Your task to perform on an android device: delete location history Image 0: 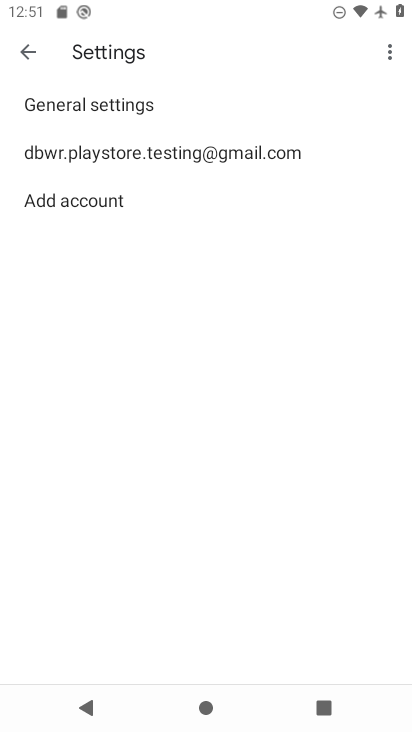
Step 0: press home button
Your task to perform on an android device: delete location history Image 1: 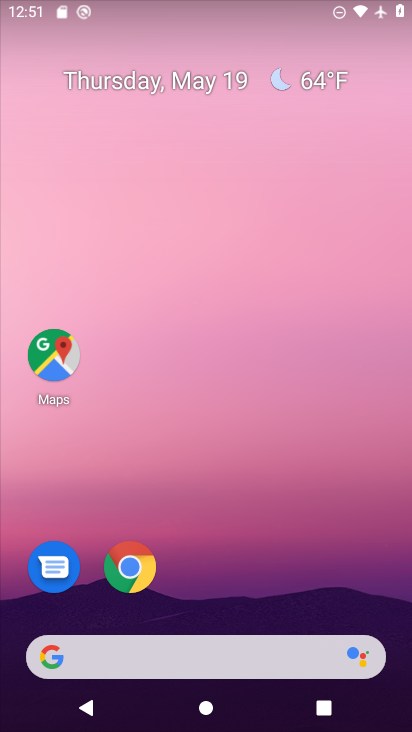
Step 1: drag from (273, 568) to (273, 112)
Your task to perform on an android device: delete location history Image 2: 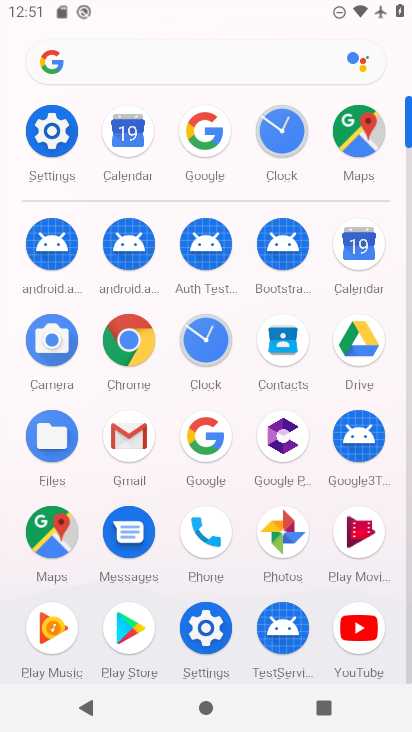
Step 2: click (58, 133)
Your task to perform on an android device: delete location history Image 3: 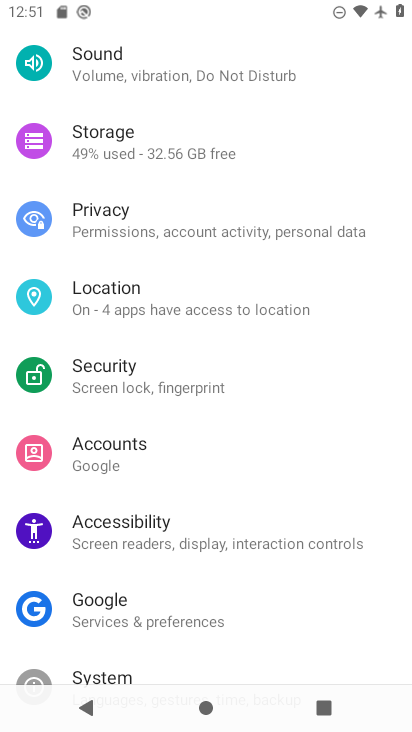
Step 3: click (175, 296)
Your task to perform on an android device: delete location history Image 4: 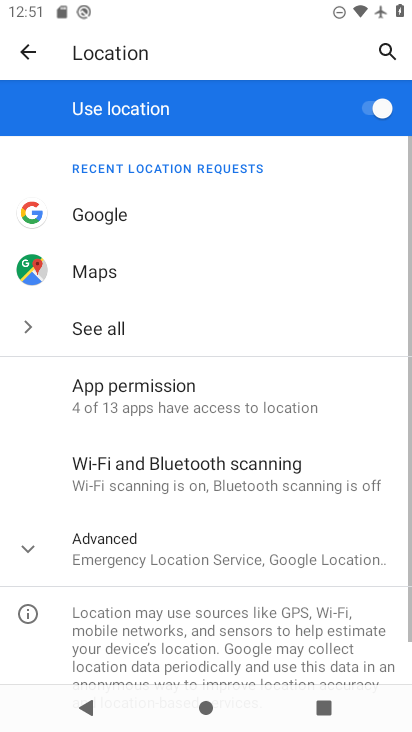
Step 4: click (30, 548)
Your task to perform on an android device: delete location history Image 5: 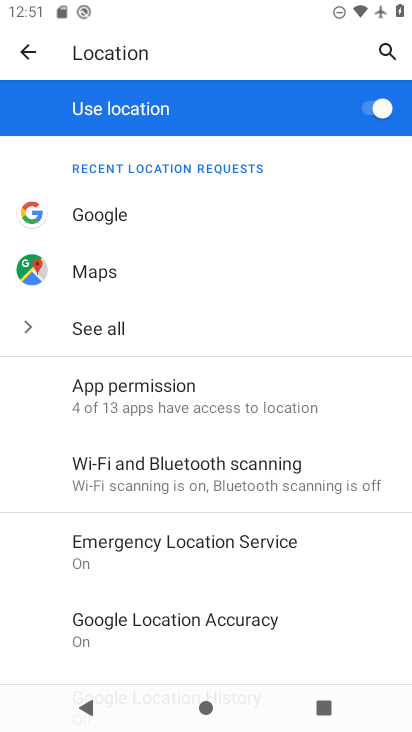
Step 5: drag from (227, 622) to (247, 298)
Your task to perform on an android device: delete location history Image 6: 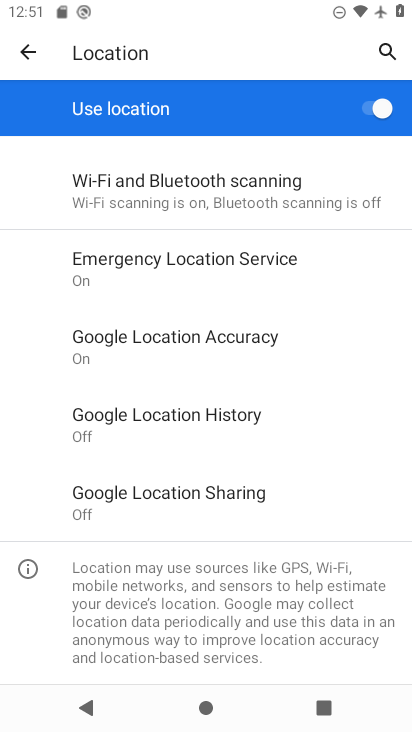
Step 6: click (232, 422)
Your task to perform on an android device: delete location history Image 7: 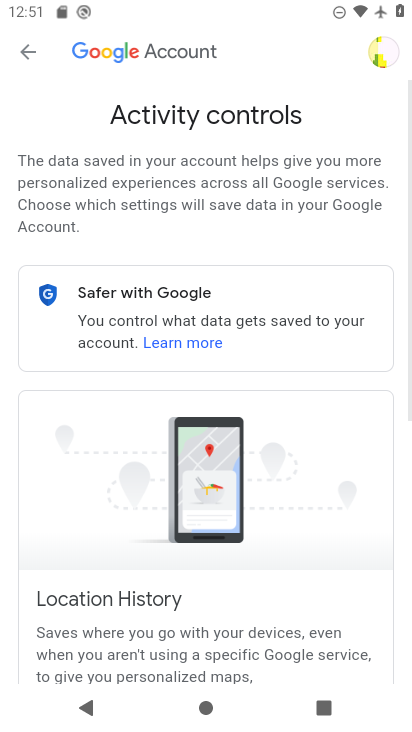
Step 7: drag from (239, 616) to (227, 263)
Your task to perform on an android device: delete location history Image 8: 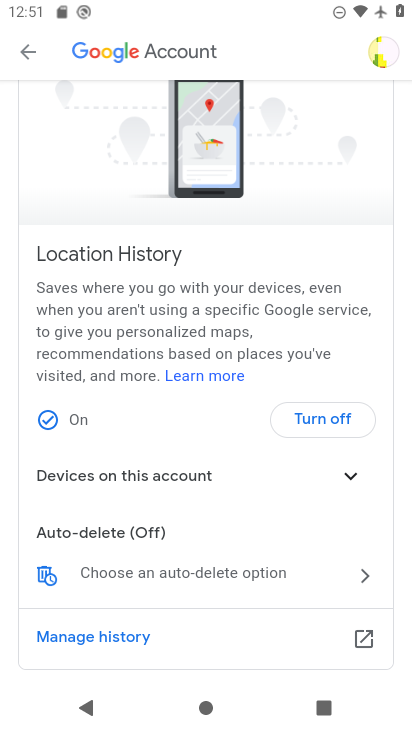
Step 8: drag from (170, 621) to (171, 404)
Your task to perform on an android device: delete location history Image 9: 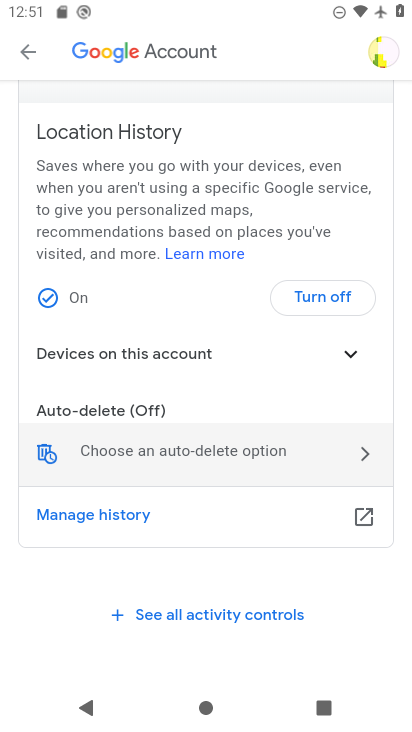
Step 9: click (176, 458)
Your task to perform on an android device: delete location history Image 10: 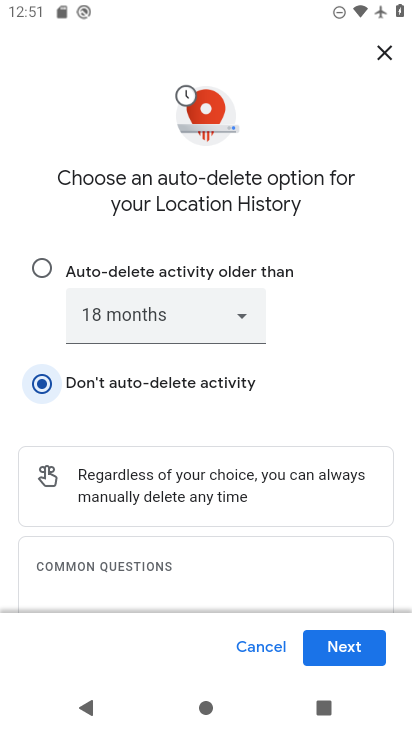
Step 10: click (351, 643)
Your task to perform on an android device: delete location history Image 11: 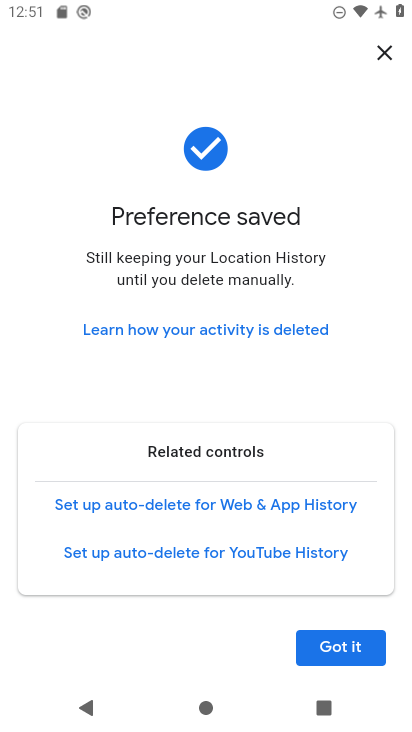
Step 11: click (345, 650)
Your task to perform on an android device: delete location history Image 12: 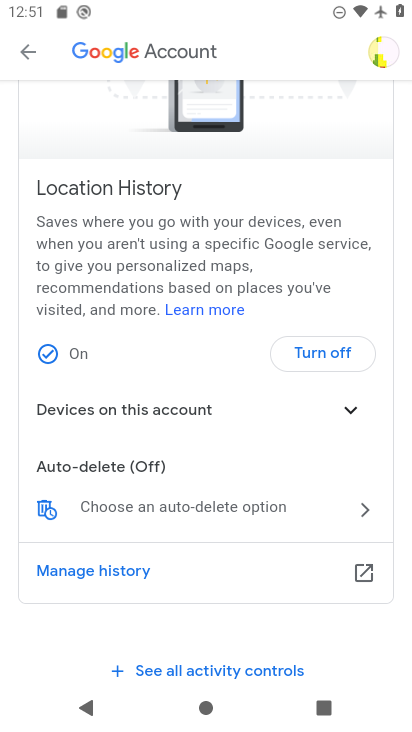
Step 12: task complete